Your task to perform on an android device: Do I have any events this weekend? Image 0: 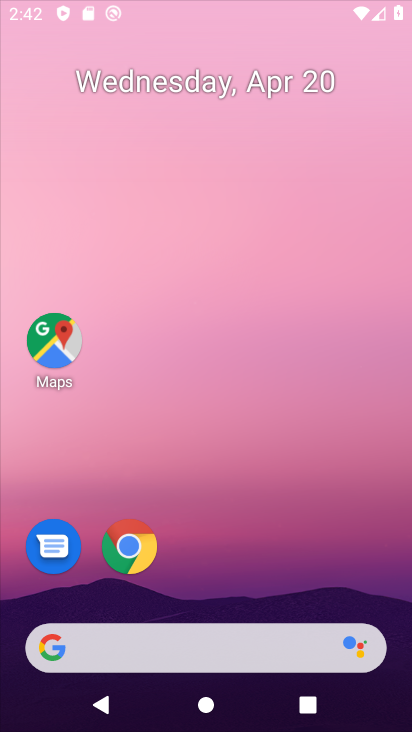
Step 0: click (57, 345)
Your task to perform on an android device: Do I have any events this weekend? Image 1: 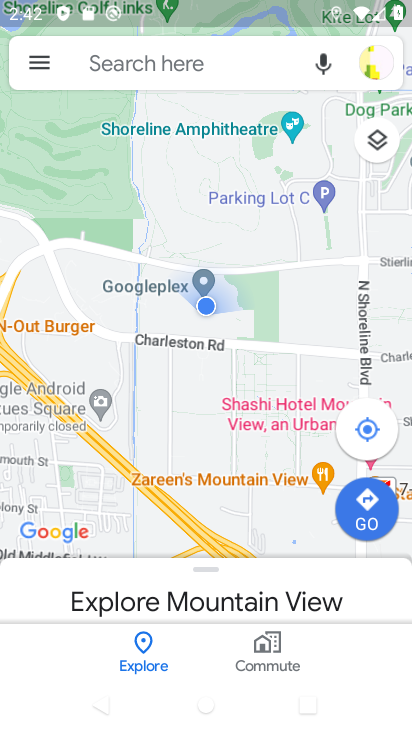
Step 1: press home button
Your task to perform on an android device: Do I have any events this weekend? Image 2: 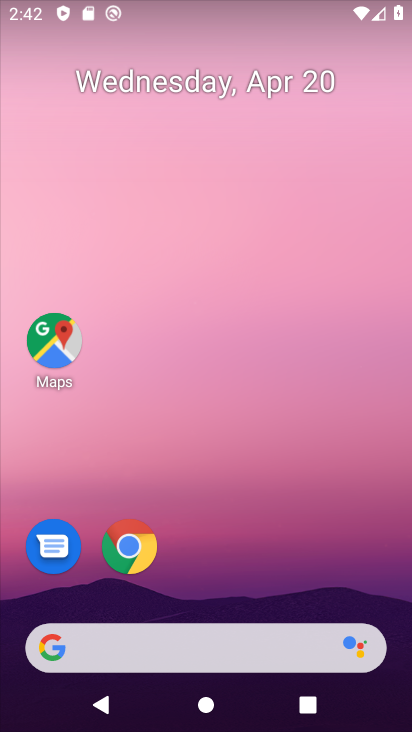
Step 2: drag from (273, 535) to (311, 72)
Your task to perform on an android device: Do I have any events this weekend? Image 3: 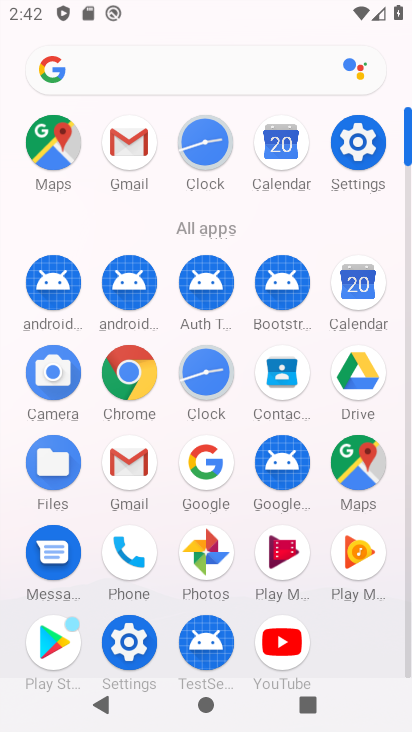
Step 3: click (366, 308)
Your task to perform on an android device: Do I have any events this weekend? Image 4: 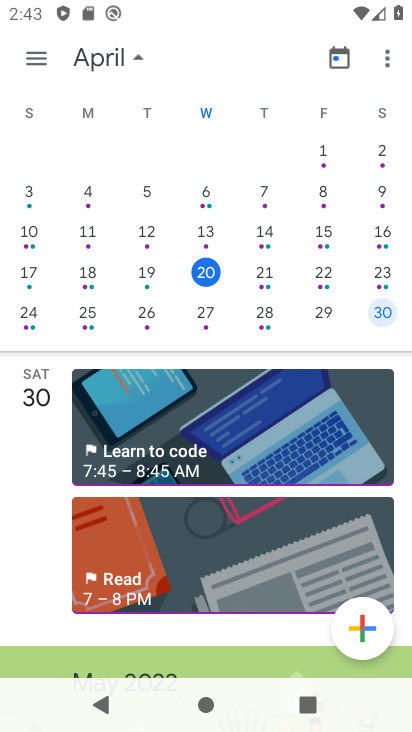
Step 4: click (276, 285)
Your task to perform on an android device: Do I have any events this weekend? Image 5: 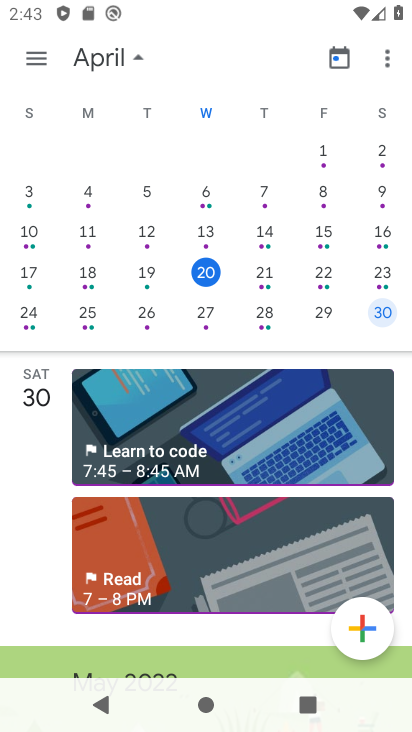
Step 5: click (317, 280)
Your task to perform on an android device: Do I have any events this weekend? Image 6: 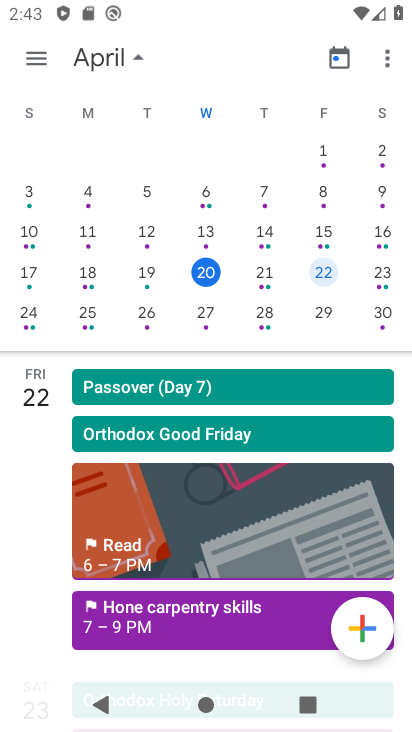
Step 6: click (377, 277)
Your task to perform on an android device: Do I have any events this weekend? Image 7: 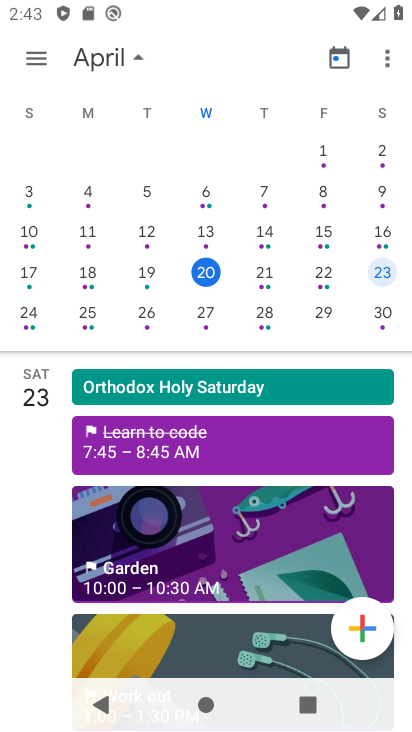
Step 7: click (33, 317)
Your task to perform on an android device: Do I have any events this weekend? Image 8: 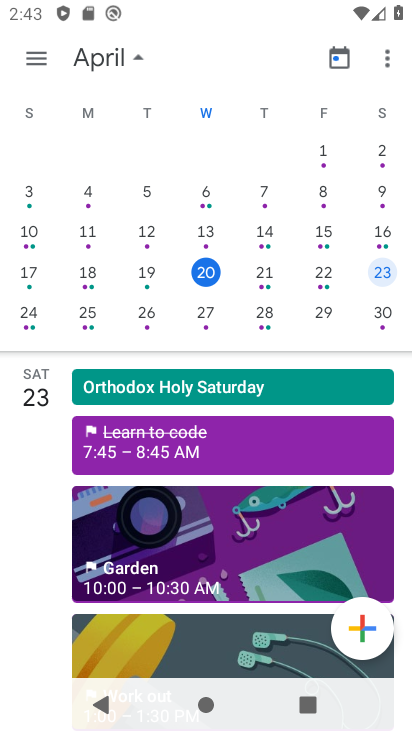
Step 8: task complete